Your task to perform on an android device: Go to sound settings Image 0: 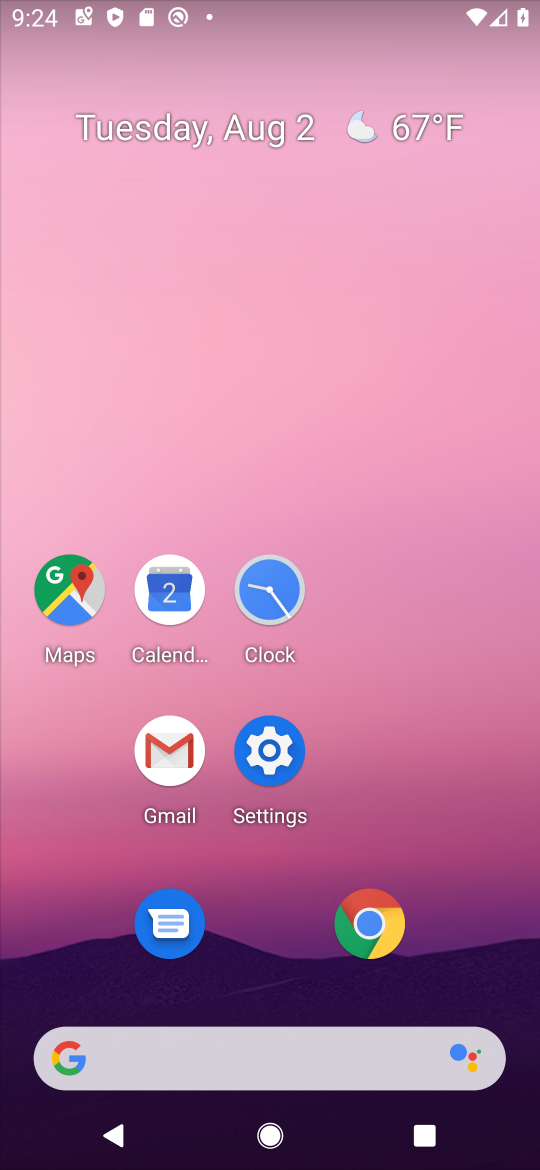
Step 0: click (266, 762)
Your task to perform on an android device: Go to sound settings Image 1: 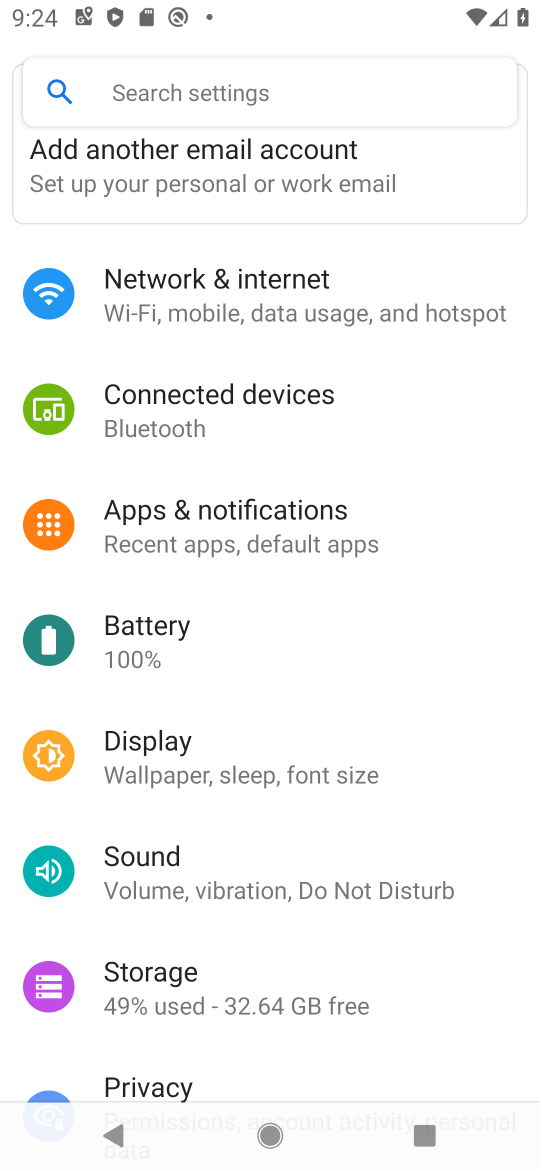
Step 1: click (158, 850)
Your task to perform on an android device: Go to sound settings Image 2: 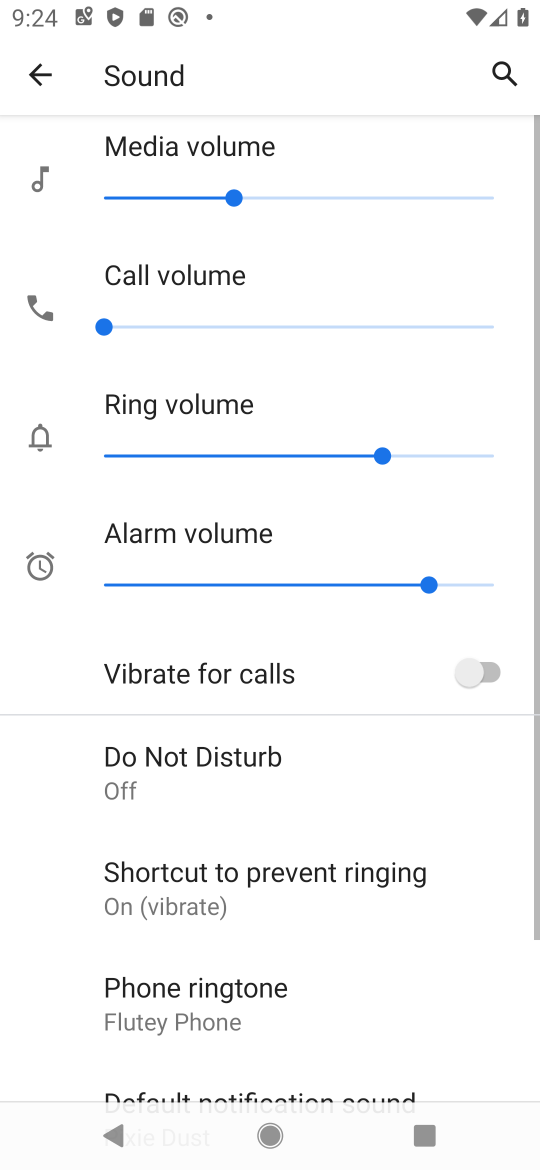
Step 2: task complete